Your task to perform on an android device: star an email in the gmail app Image 0: 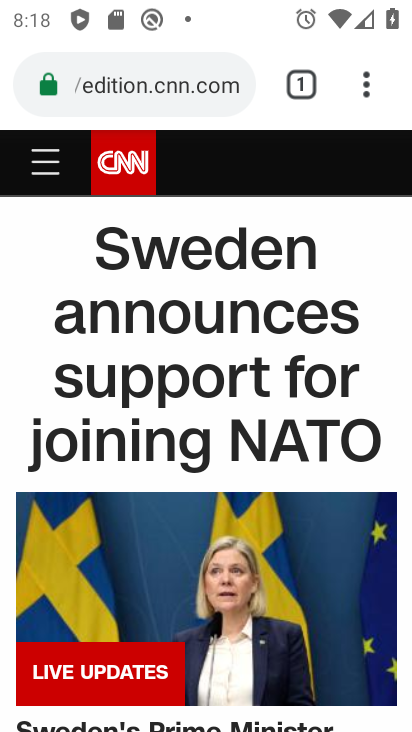
Step 0: press home button
Your task to perform on an android device: star an email in the gmail app Image 1: 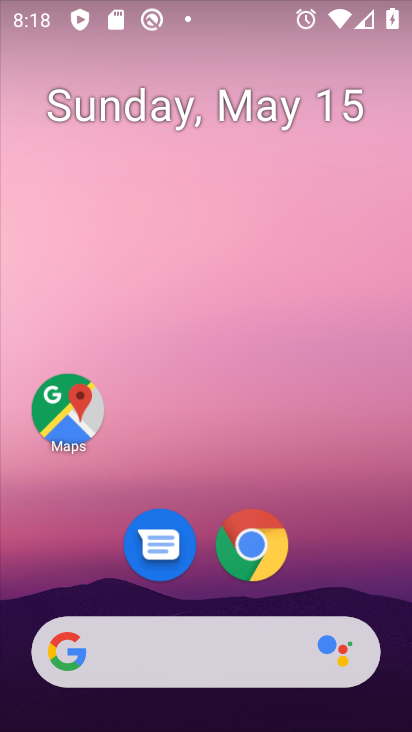
Step 1: drag from (346, 580) to (361, 107)
Your task to perform on an android device: star an email in the gmail app Image 2: 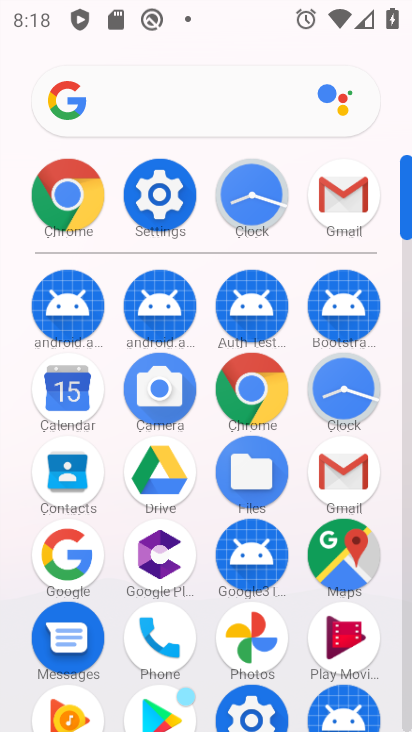
Step 2: click (362, 475)
Your task to perform on an android device: star an email in the gmail app Image 3: 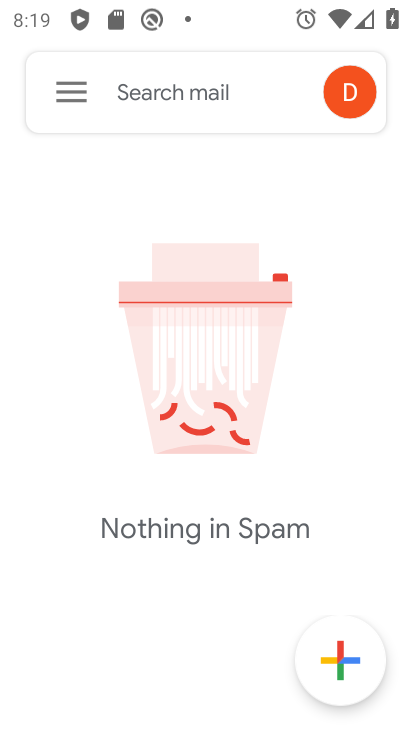
Step 3: click (74, 92)
Your task to perform on an android device: star an email in the gmail app Image 4: 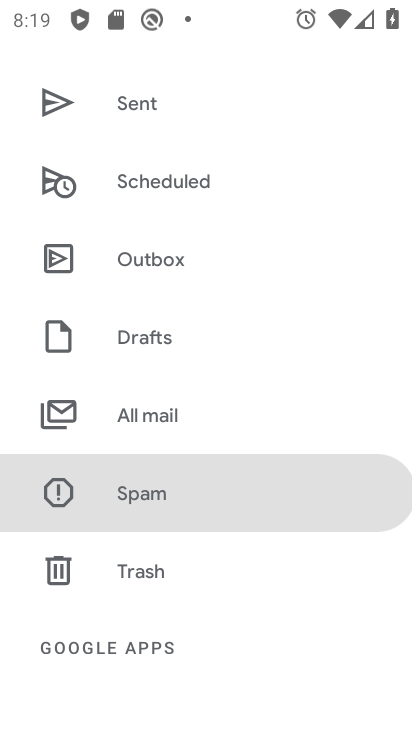
Step 4: drag from (336, 248) to (346, 573)
Your task to perform on an android device: star an email in the gmail app Image 5: 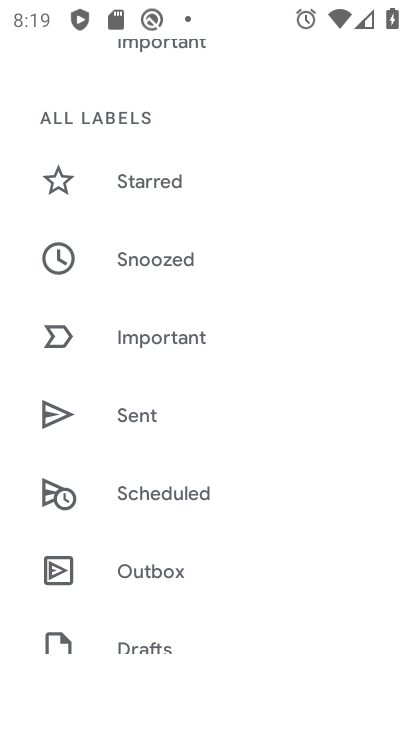
Step 5: drag from (307, 242) to (308, 536)
Your task to perform on an android device: star an email in the gmail app Image 6: 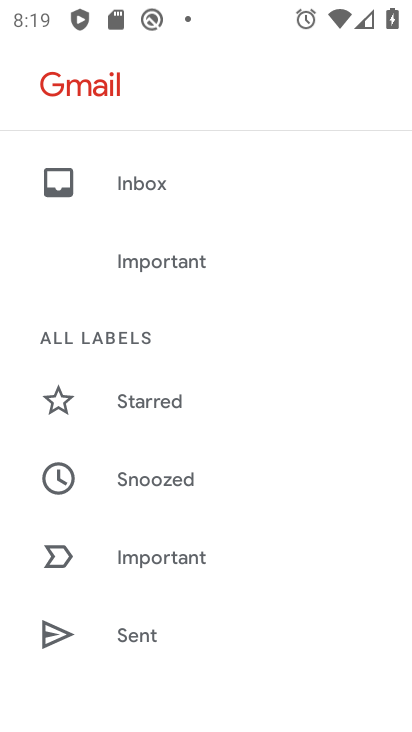
Step 6: drag from (304, 239) to (318, 510)
Your task to perform on an android device: star an email in the gmail app Image 7: 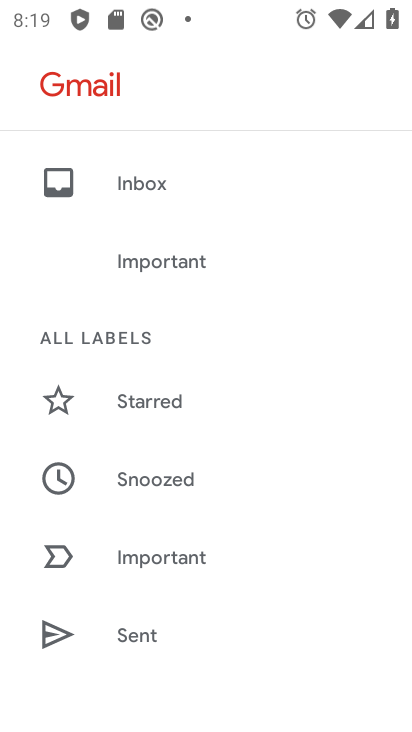
Step 7: drag from (308, 621) to (302, 338)
Your task to perform on an android device: star an email in the gmail app Image 8: 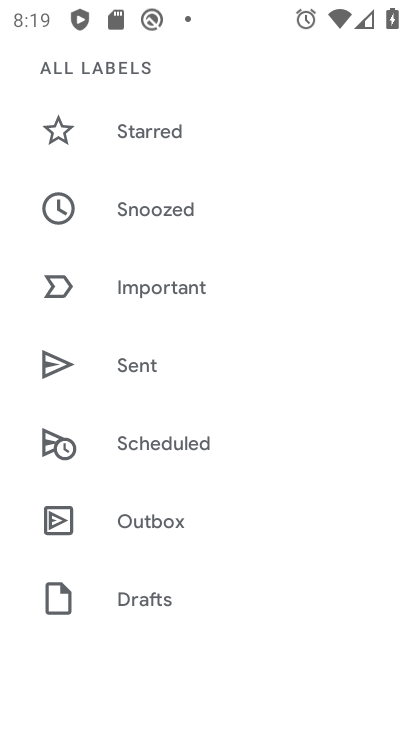
Step 8: drag from (321, 598) to (339, 308)
Your task to perform on an android device: star an email in the gmail app Image 9: 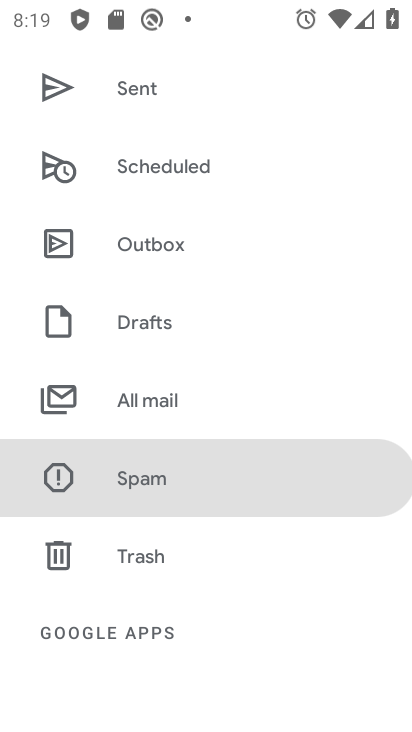
Step 9: drag from (326, 640) to (308, 341)
Your task to perform on an android device: star an email in the gmail app Image 10: 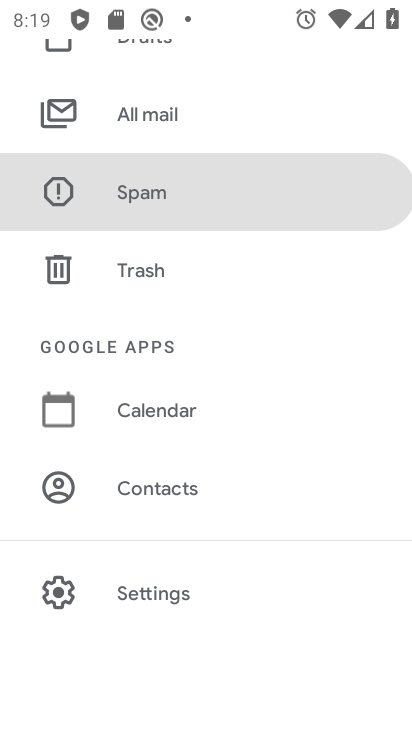
Step 10: drag from (313, 130) to (303, 452)
Your task to perform on an android device: star an email in the gmail app Image 11: 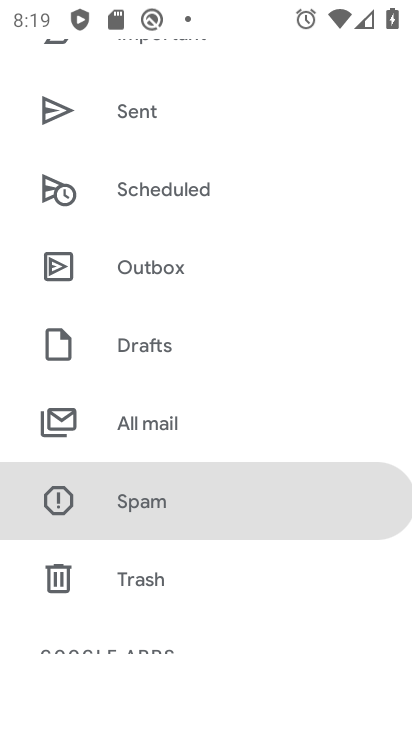
Step 11: drag from (325, 211) to (320, 563)
Your task to perform on an android device: star an email in the gmail app Image 12: 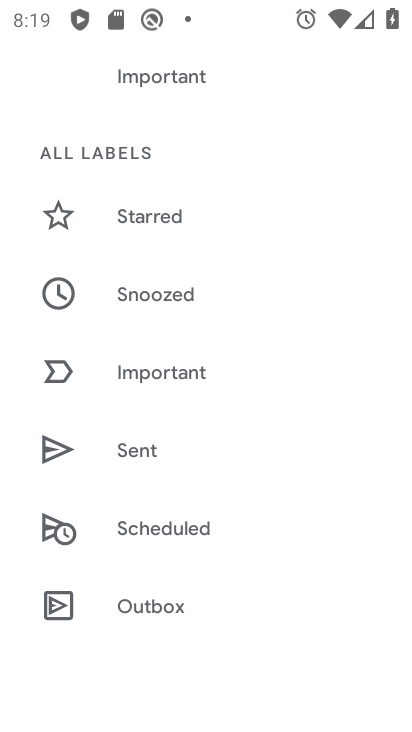
Step 12: drag from (323, 184) to (307, 526)
Your task to perform on an android device: star an email in the gmail app Image 13: 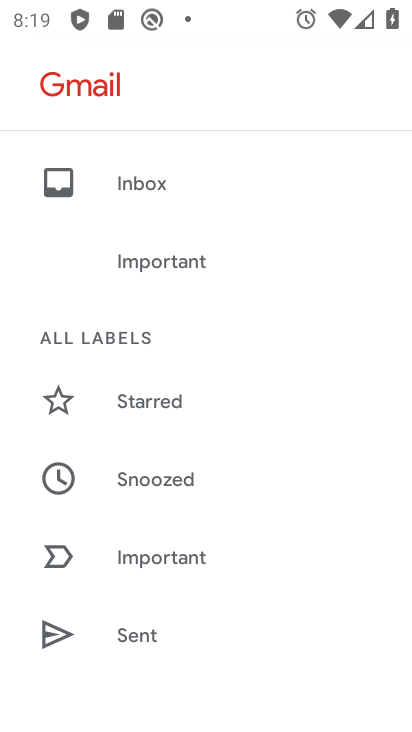
Step 13: click (158, 179)
Your task to perform on an android device: star an email in the gmail app Image 14: 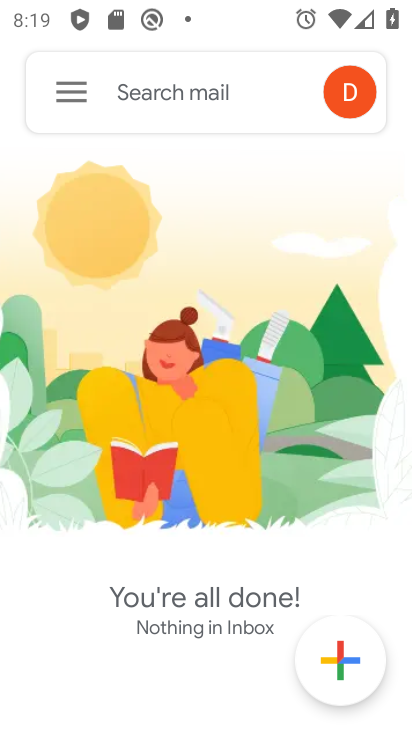
Step 14: task complete